Your task to perform on an android device: Open eBay Image 0: 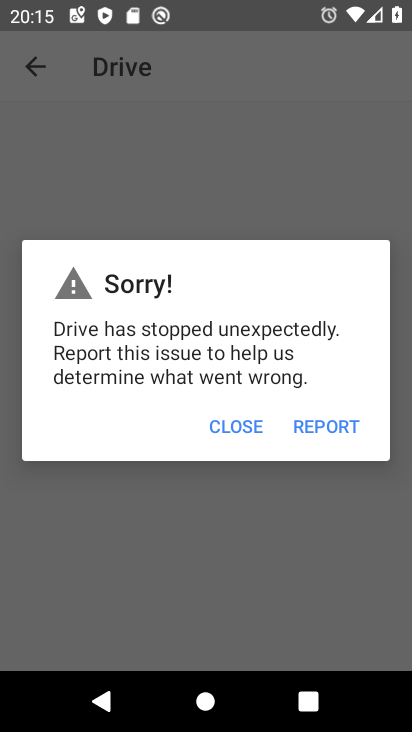
Step 0: press home button
Your task to perform on an android device: Open eBay Image 1: 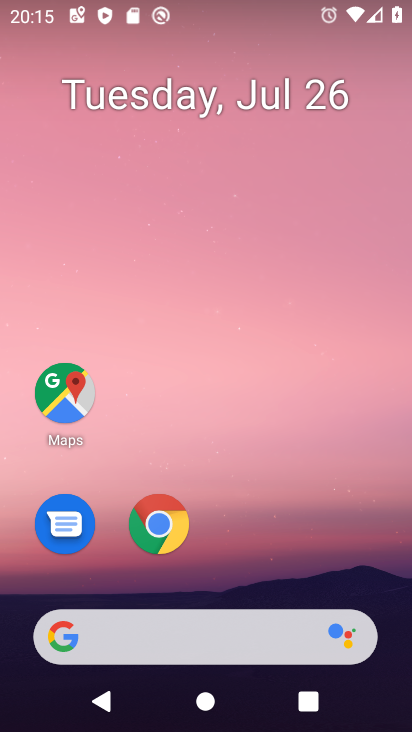
Step 1: click (136, 640)
Your task to perform on an android device: Open eBay Image 2: 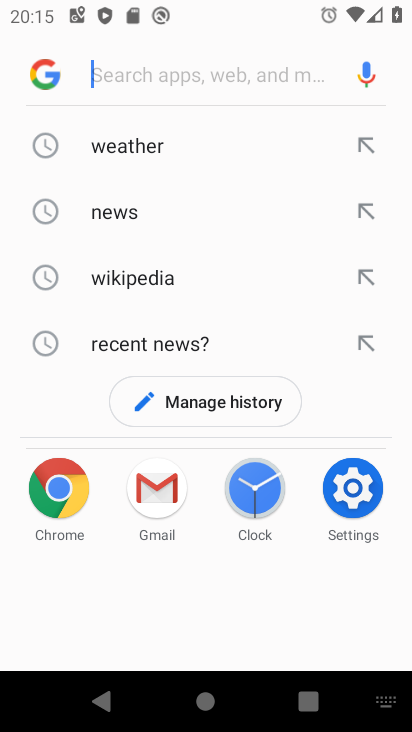
Step 2: type "ebay"
Your task to perform on an android device: Open eBay Image 3: 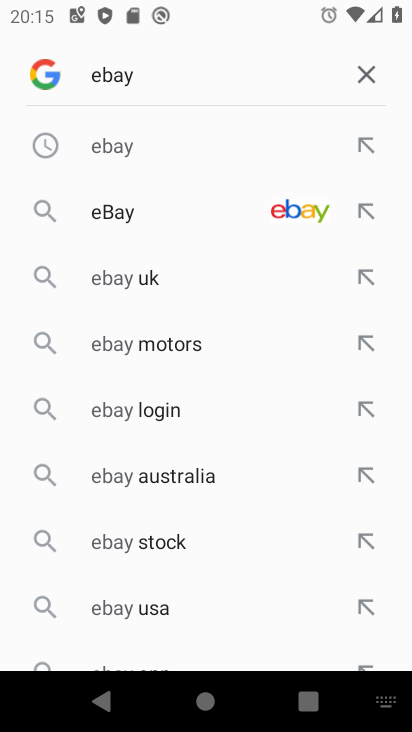
Step 3: click (298, 213)
Your task to perform on an android device: Open eBay Image 4: 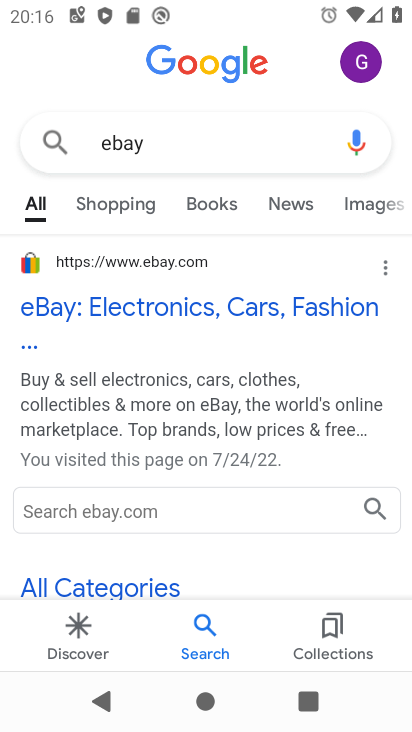
Step 4: click (64, 303)
Your task to perform on an android device: Open eBay Image 5: 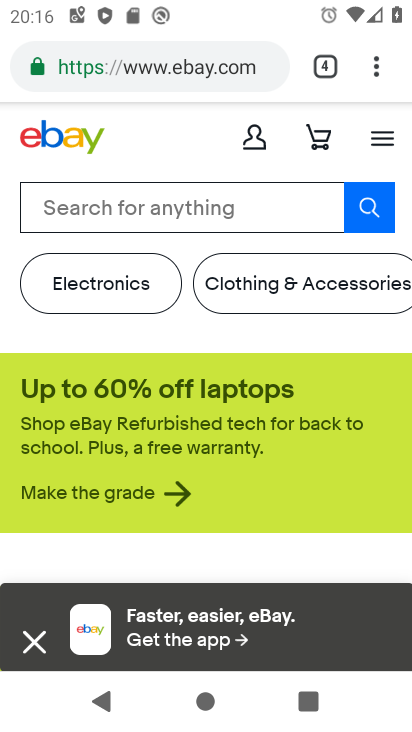
Step 5: task complete